Your task to perform on an android device: Open Google Chrome and open the bookmarks view Image 0: 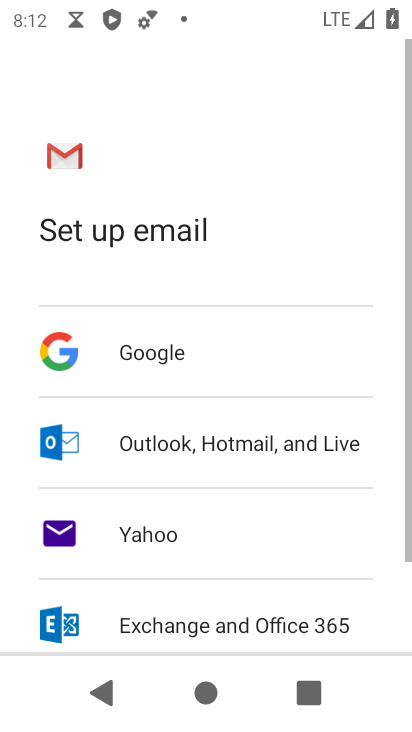
Step 0: drag from (231, 511) to (306, 83)
Your task to perform on an android device: Open Google Chrome and open the bookmarks view Image 1: 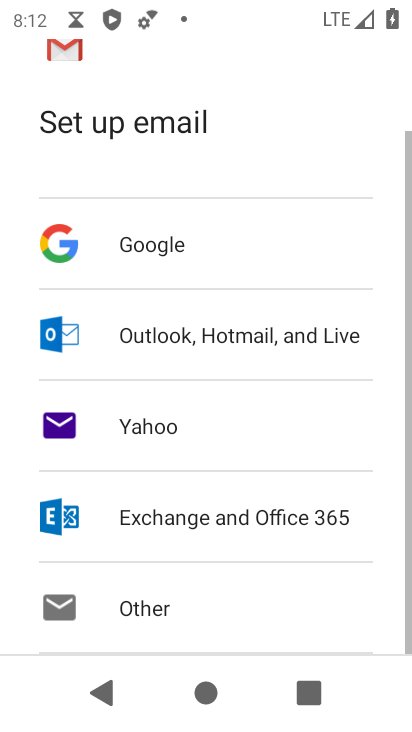
Step 1: press home button
Your task to perform on an android device: Open Google Chrome and open the bookmarks view Image 2: 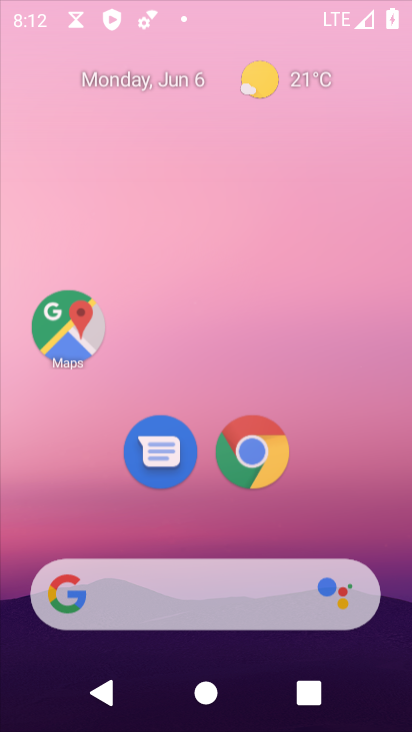
Step 2: drag from (262, 625) to (373, 73)
Your task to perform on an android device: Open Google Chrome and open the bookmarks view Image 3: 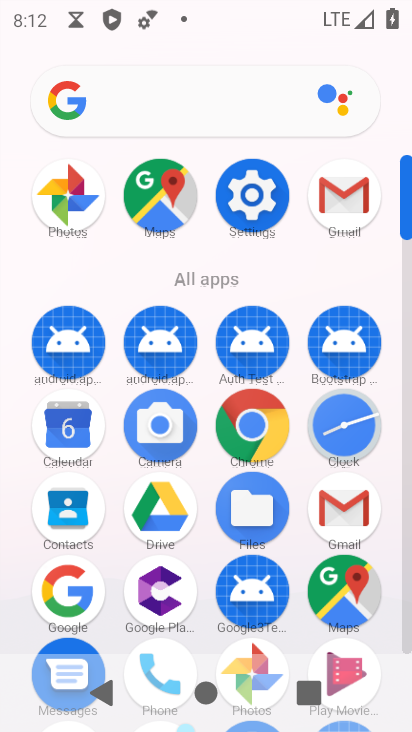
Step 3: click (263, 421)
Your task to perform on an android device: Open Google Chrome and open the bookmarks view Image 4: 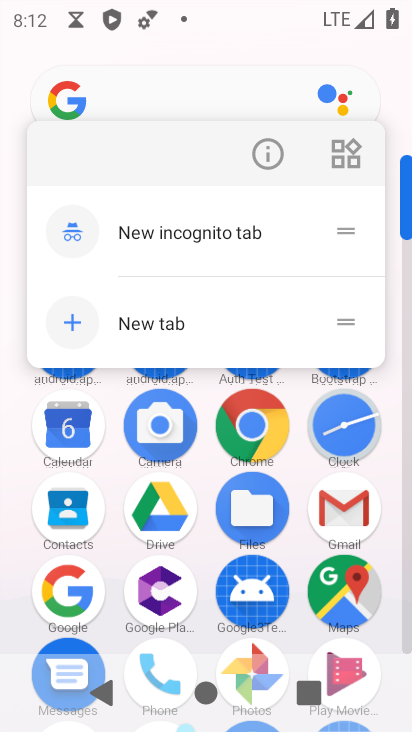
Step 4: click (275, 149)
Your task to perform on an android device: Open Google Chrome and open the bookmarks view Image 5: 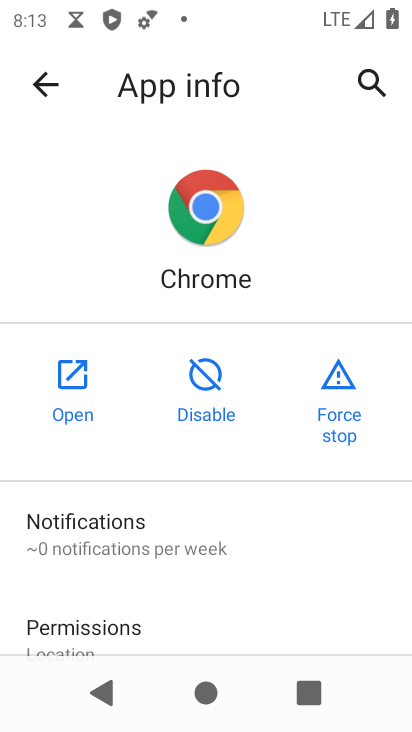
Step 5: click (68, 383)
Your task to perform on an android device: Open Google Chrome and open the bookmarks view Image 6: 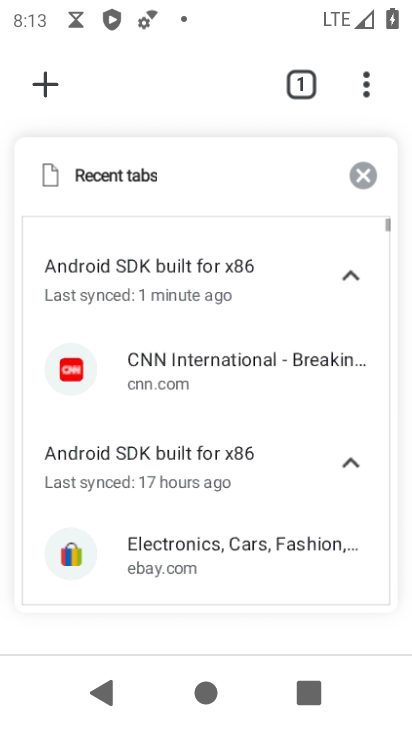
Step 6: click (227, 209)
Your task to perform on an android device: Open Google Chrome and open the bookmarks view Image 7: 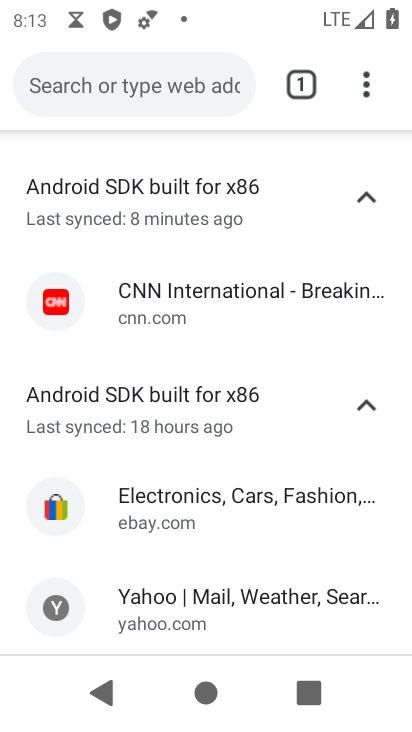
Step 7: click (361, 73)
Your task to perform on an android device: Open Google Chrome and open the bookmarks view Image 8: 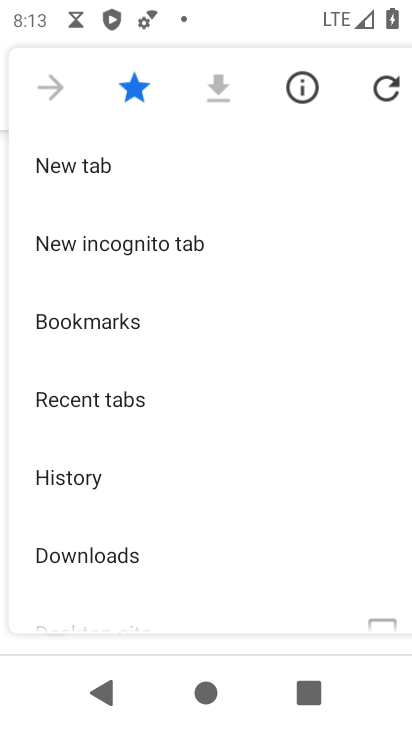
Step 8: click (128, 322)
Your task to perform on an android device: Open Google Chrome and open the bookmarks view Image 9: 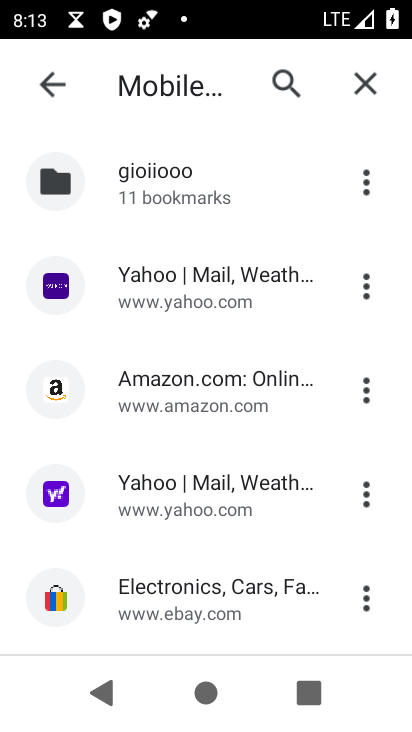
Step 9: task complete